Your task to perform on an android device: toggle notifications settings in the gmail app Image 0: 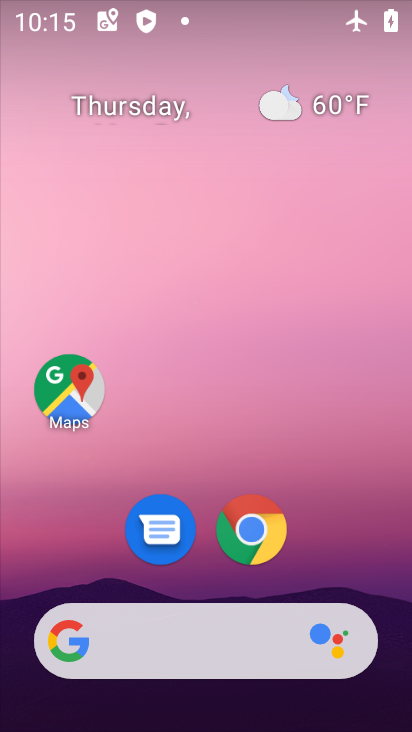
Step 0: drag from (372, 636) to (163, 223)
Your task to perform on an android device: toggle notifications settings in the gmail app Image 1: 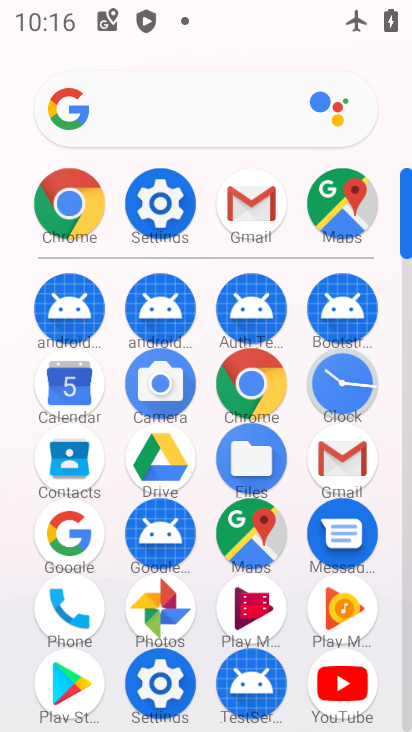
Step 1: click (343, 456)
Your task to perform on an android device: toggle notifications settings in the gmail app Image 2: 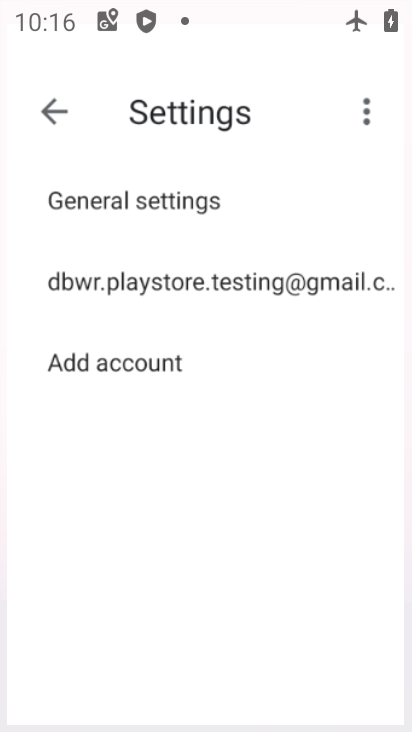
Step 2: click (336, 455)
Your task to perform on an android device: toggle notifications settings in the gmail app Image 3: 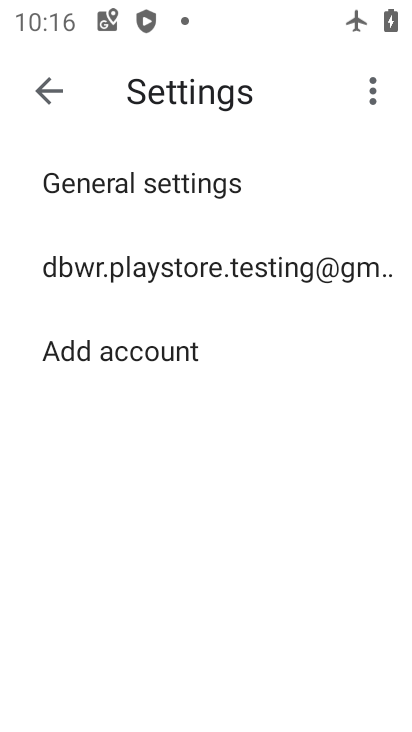
Step 3: click (325, 450)
Your task to perform on an android device: toggle notifications settings in the gmail app Image 4: 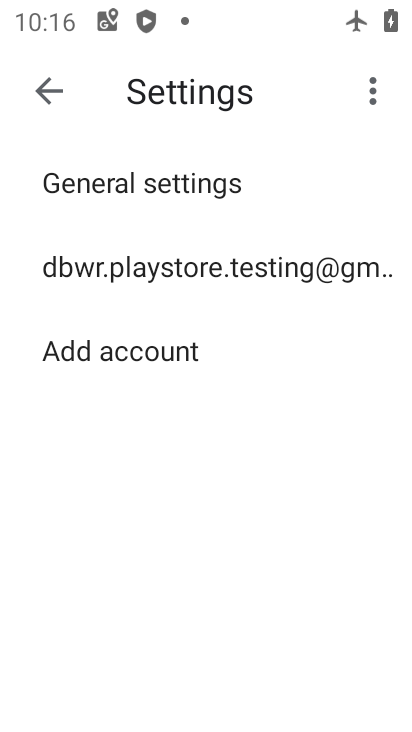
Step 4: click (164, 250)
Your task to perform on an android device: toggle notifications settings in the gmail app Image 5: 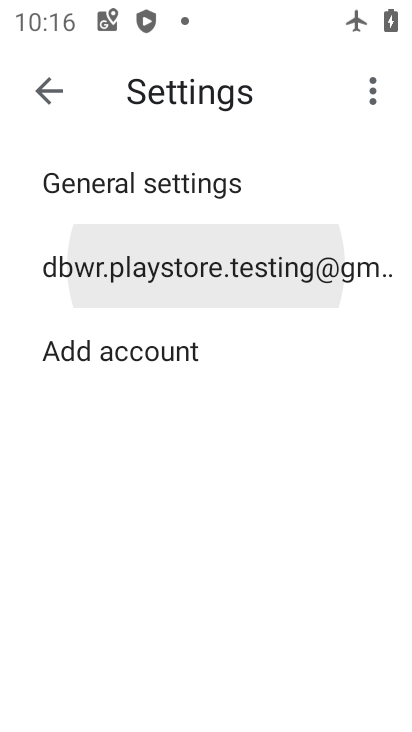
Step 5: click (162, 259)
Your task to perform on an android device: toggle notifications settings in the gmail app Image 6: 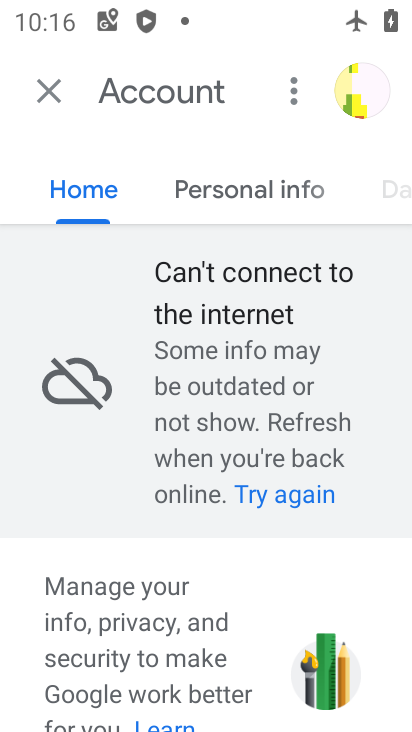
Step 6: click (45, 92)
Your task to perform on an android device: toggle notifications settings in the gmail app Image 7: 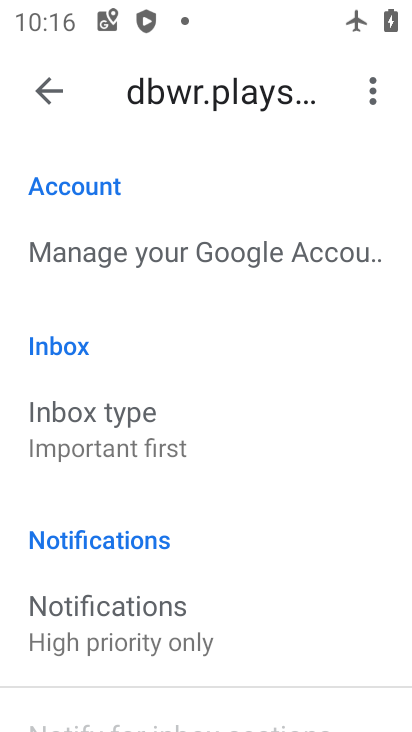
Step 7: click (110, 625)
Your task to perform on an android device: toggle notifications settings in the gmail app Image 8: 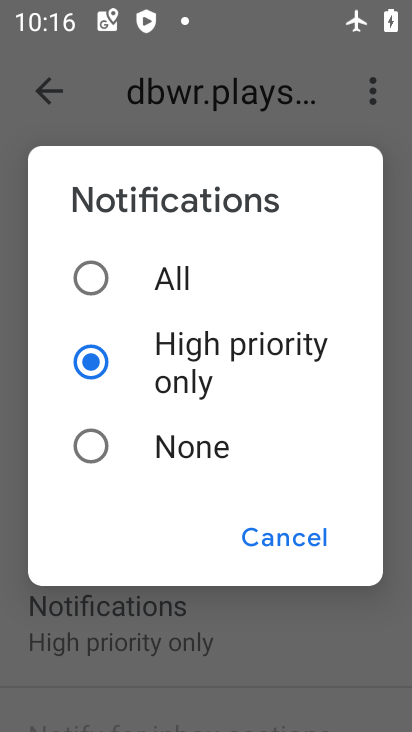
Step 8: click (88, 288)
Your task to perform on an android device: toggle notifications settings in the gmail app Image 9: 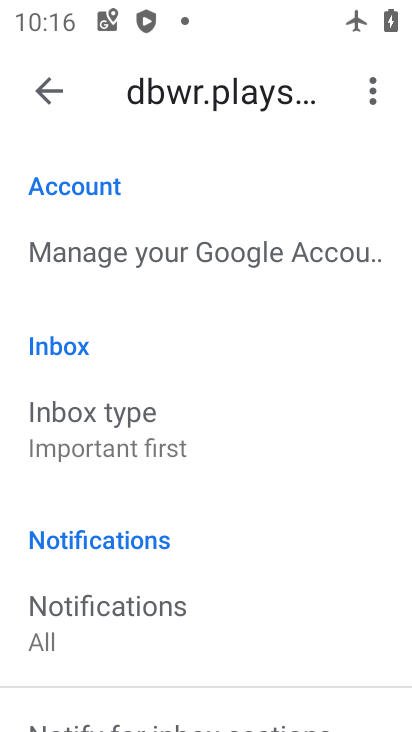
Step 9: click (87, 603)
Your task to perform on an android device: toggle notifications settings in the gmail app Image 10: 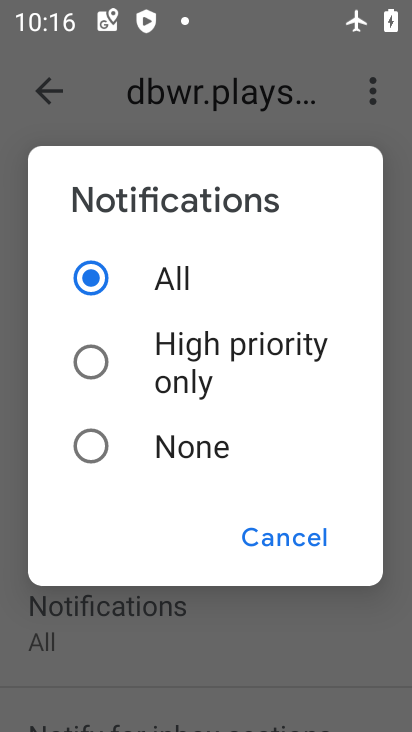
Step 10: click (257, 534)
Your task to perform on an android device: toggle notifications settings in the gmail app Image 11: 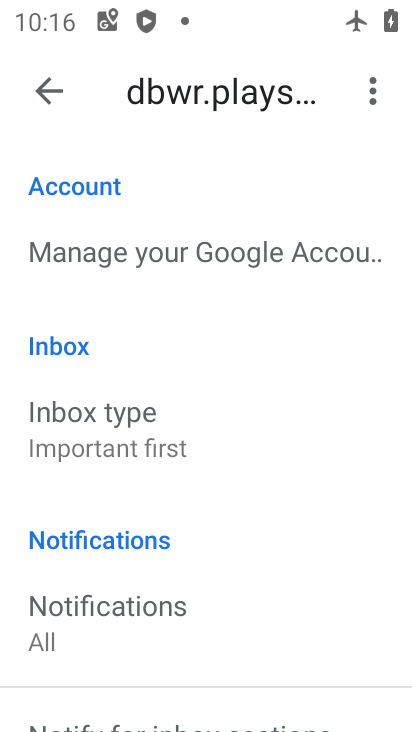
Step 11: task complete